Your task to perform on an android device: toggle priority inbox in the gmail app Image 0: 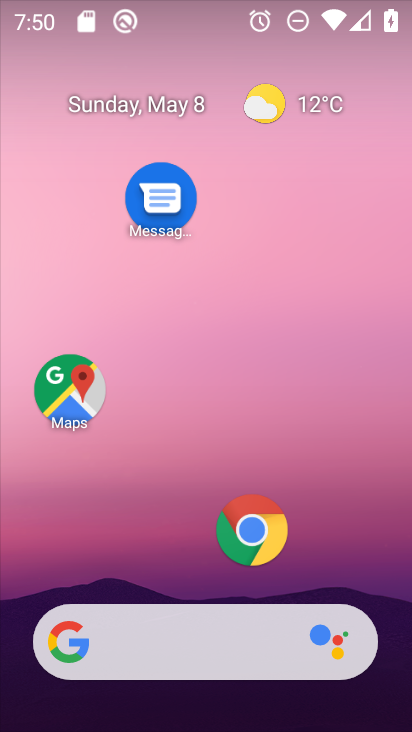
Step 0: drag from (189, 583) to (241, 12)
Your task to perform on an android device: toggle priority inbox in the gmail app Image 1: 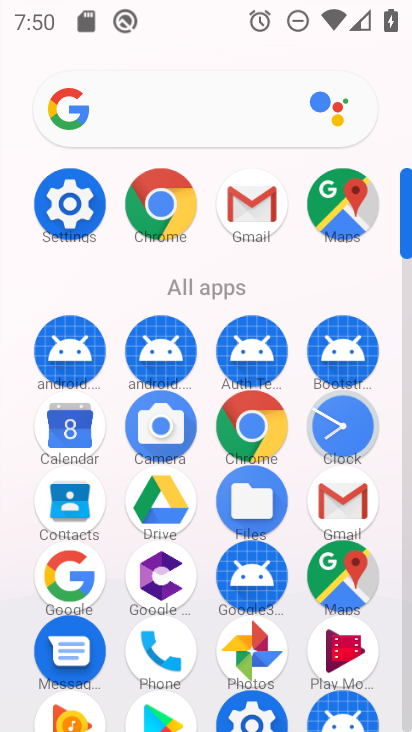
Step 1: click (251, 200)
Your task to perform on an android device: toggle priority inbox in the gmail app Image 2: 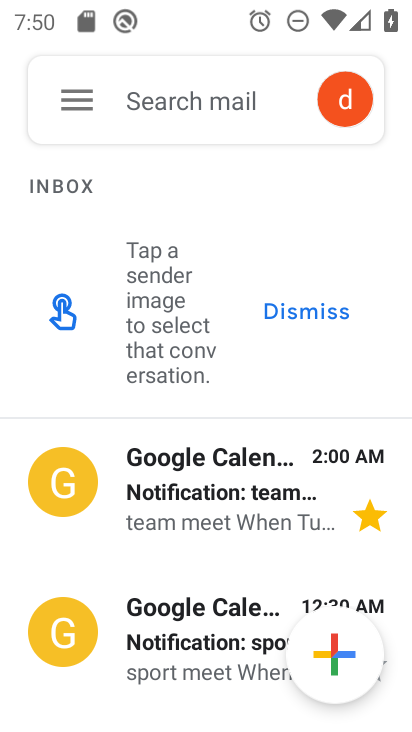
Step 2: click (76, 98)
Your task to perform on an android device: toggle priority inbox in the gmail app Image 3: 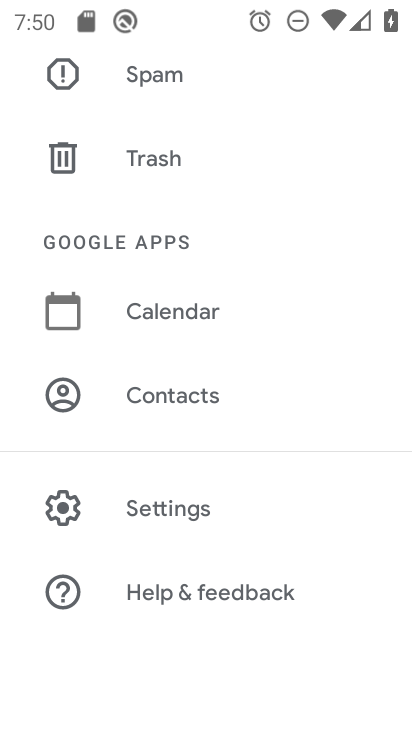
Step 3: click (170, 491)
Your task to perform on an android device: toggle priority inbox in the gmail app Image 4: 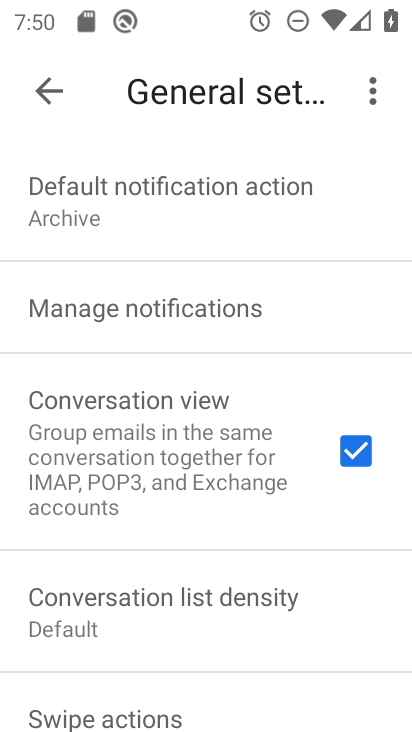
Step 4: click (50, 92)
Your task to perform on an android device: toggle priority inbox in the gmail app Image 5: 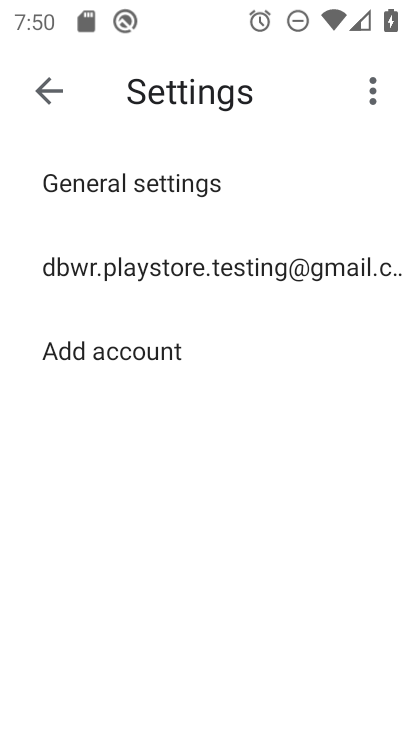
Step 5: click (206, 274)
Your task to perform on an android device: toggle priority inbox in the gmail app Image 6: 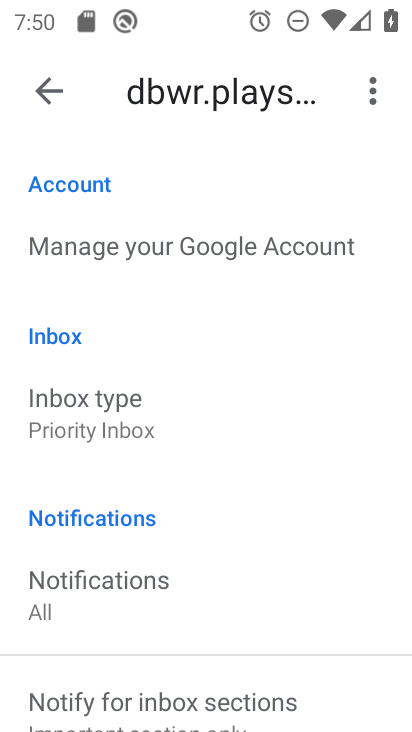
Step 6: click (164, 413)
Your task to perform on an android device: toggle priority inbox in the gmail app Image 7: 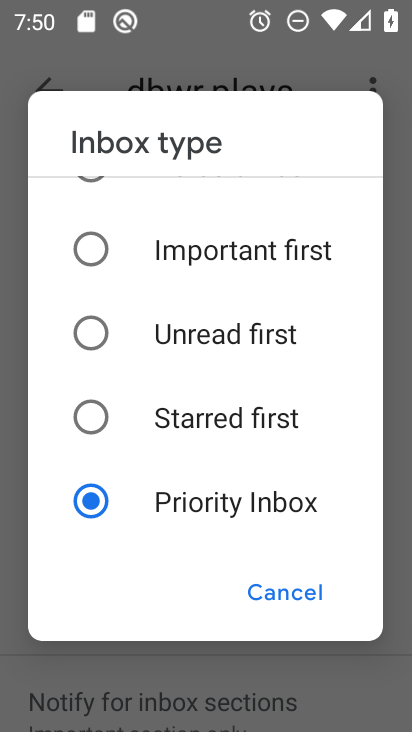
Step 7: click (168, 499)
Your task to perform on an android device: toggle priority inbox in the gmail app Image 8: 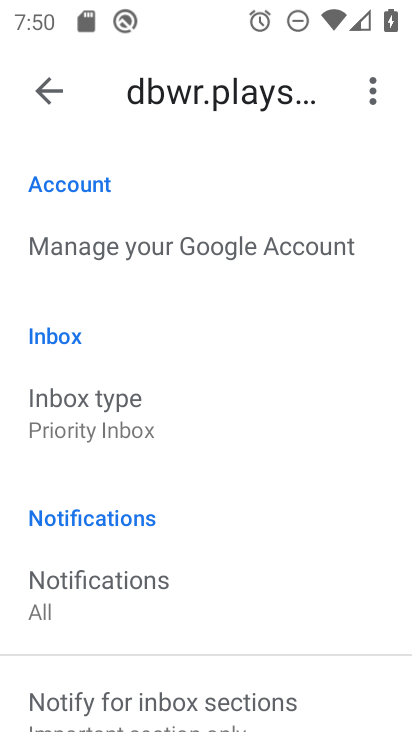
Step 8: task complete